Your task to perform on an android device: set the stopwatch Image 0: 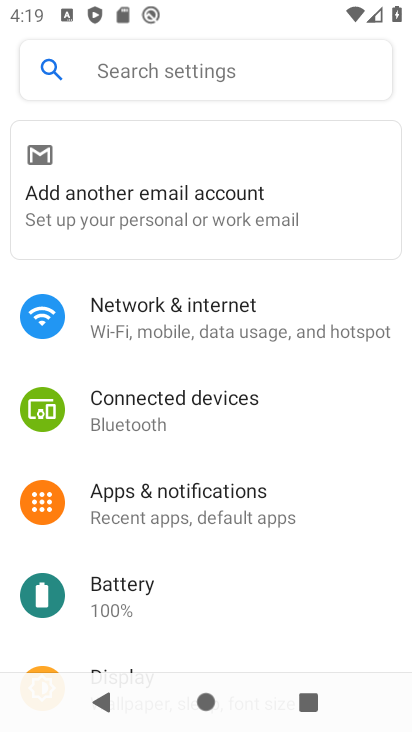
Step 0: press home button
Your task to perform on an android device: set the stopwatch Image 1: 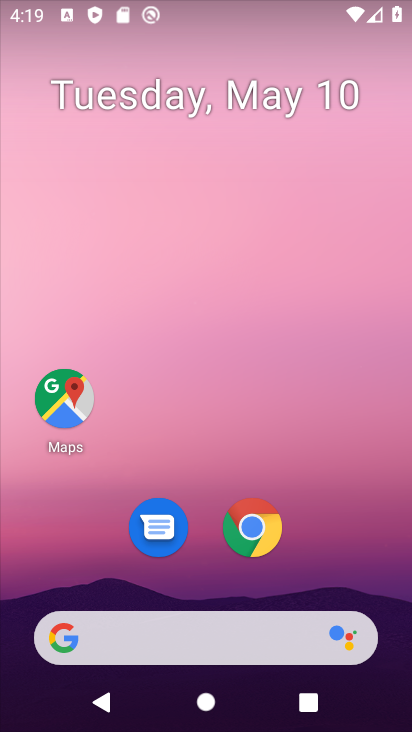
Step 1: drag from (333, 541) to (335, 27)
Your task to perform on an android device: set the stopwatch Image 2: 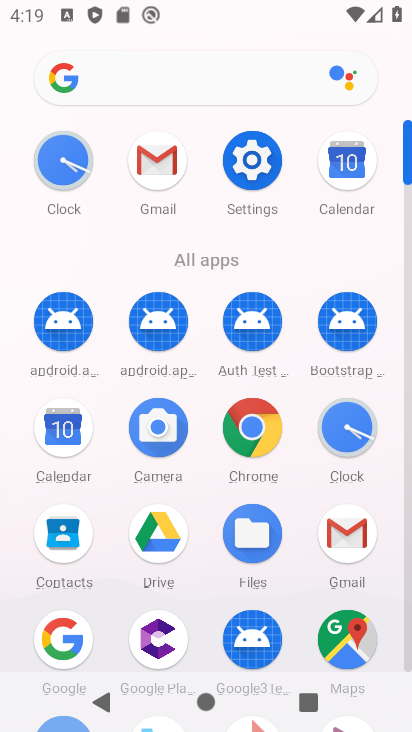
Step 2: click (346, 434)
Your task to perform on an android device: set the stopwatch Image 3: 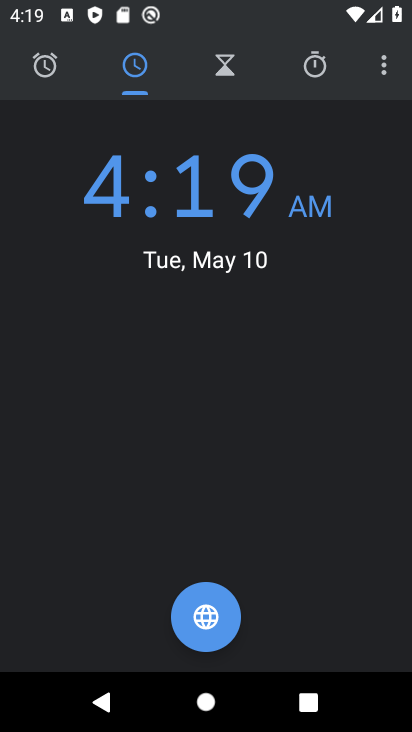
Step 3: click (322, 70)
Your task to perform on an android device: set the stopwatch Image 4: 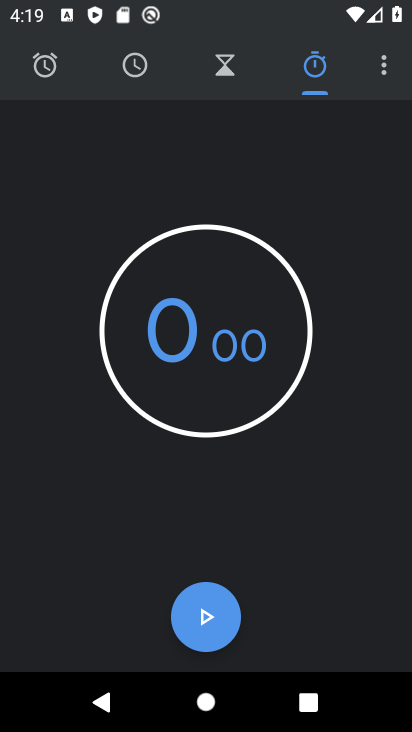
Step 4: task complete